Your task to perform on an android device: Open battery settings Image 0: 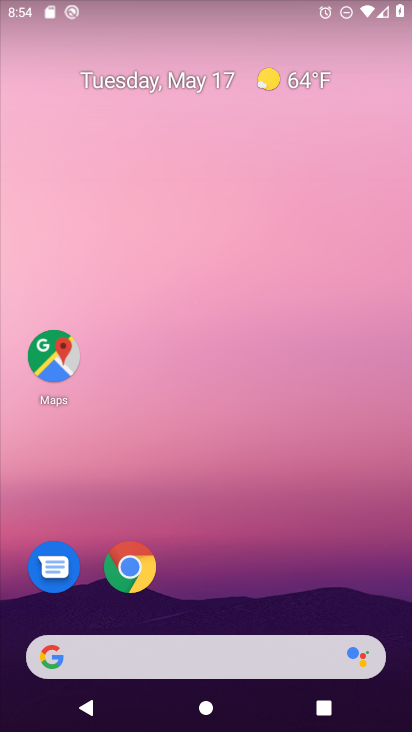
Step 0: drag from (338, 595) to (233, 68)
Your task to perform on an android device: Open battery settings Image 1: 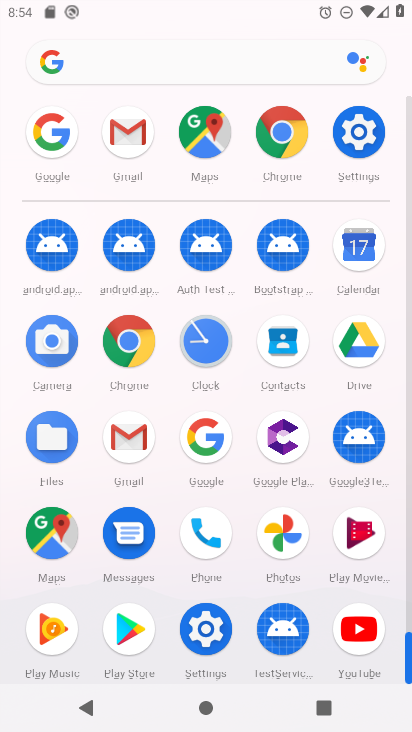
Step 1: click (351, 127)
Your task to perform on an android device: Open battery settings Image 2: 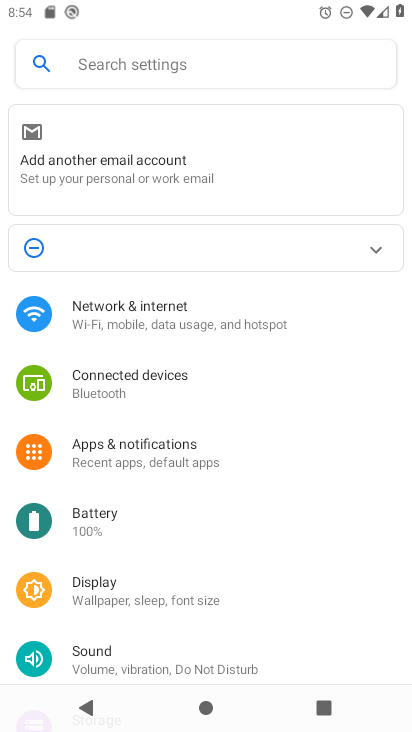
Step 2: drag from (115, 653) to (140, 358)
Your task to perform on an android device: Open battery settings Image 3: 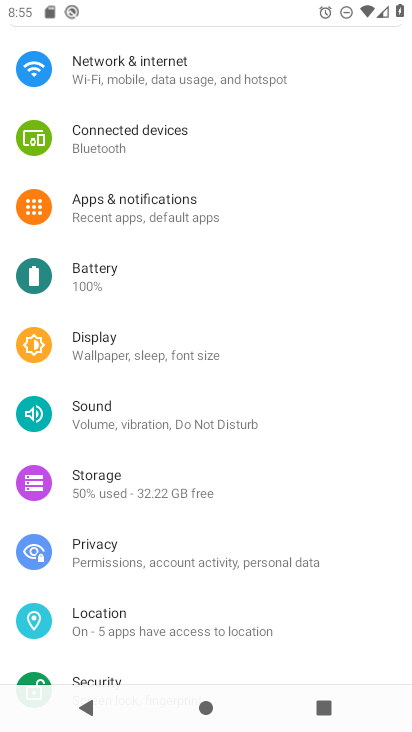
Step 3: click (140, 286)
Your task to perform on an android device: Open battery settings Image 4: 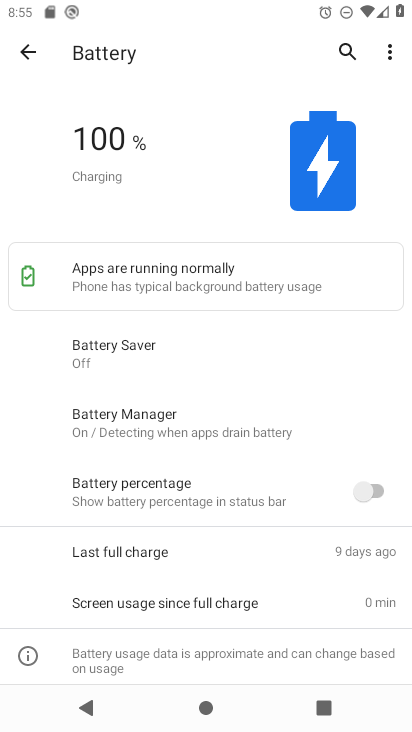
Step 4: task complete